Your task to perform on an android device: Go to Wikipedia Image 0: 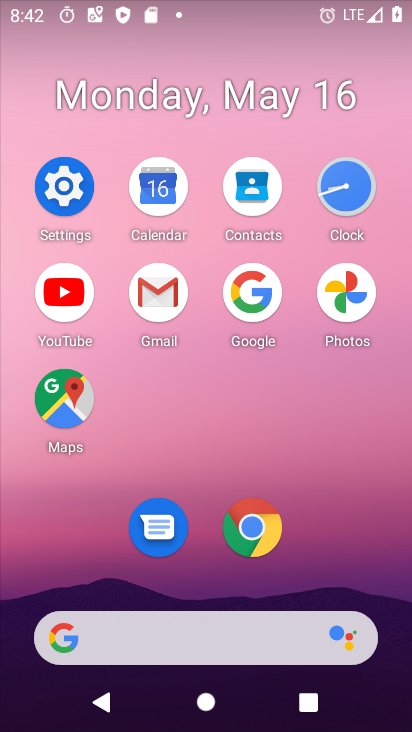
Step 0: click (249, 530)
Your task to perform on an android device: Go to Wikipedia Image 1: 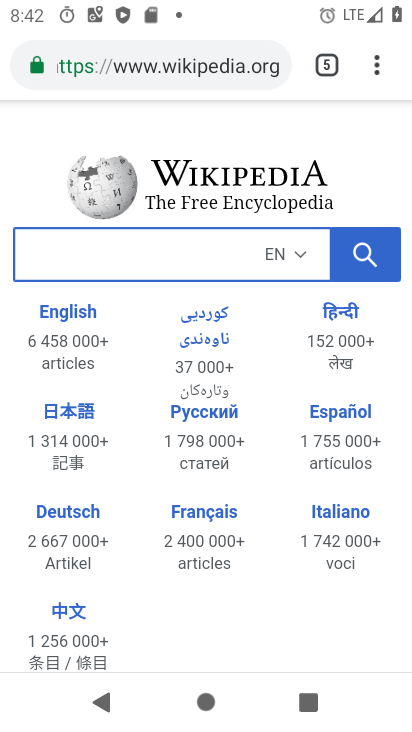
Step 1: click (320, 70)
Your task to perform on an android device: Go to Wikipedia Image 2: 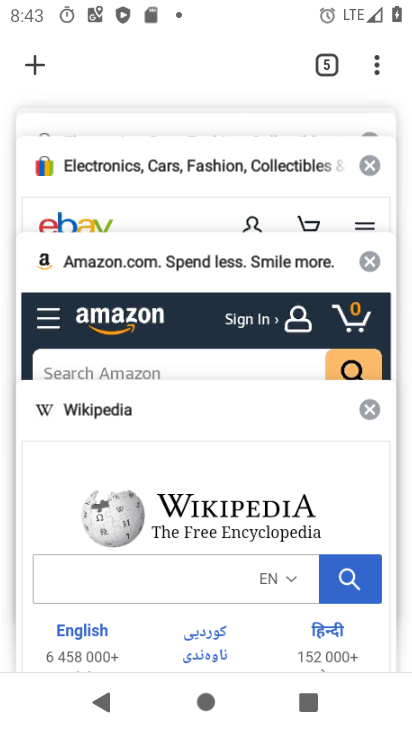
Step 2: click (35, 68)
Your task to perform on an android device: Go to Wikipedia Image 3: 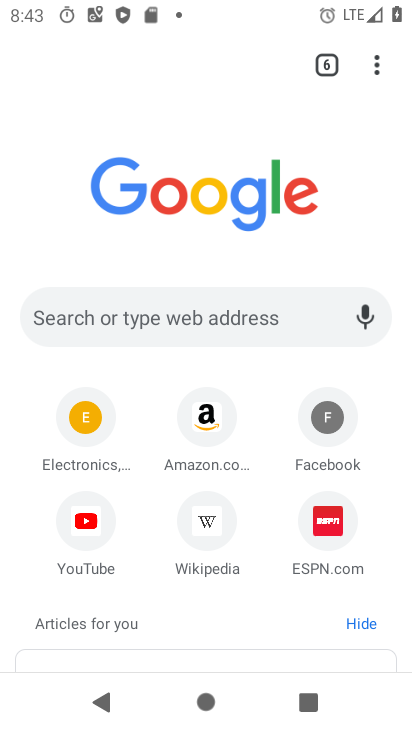
Step 3: click (216, 520)
Your task to perform on an android device: Go to Wikipedia Image 4: 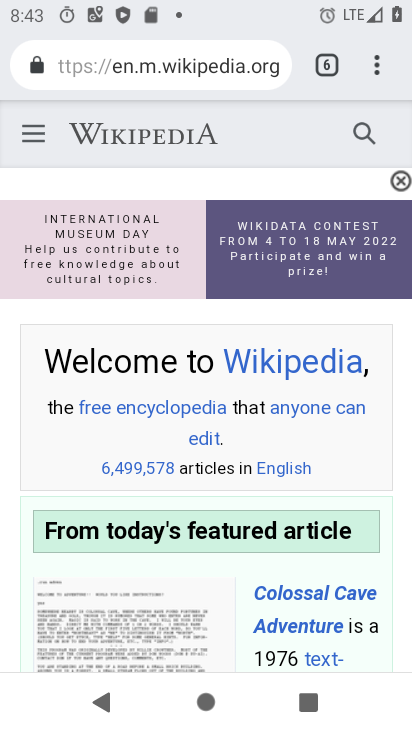
Step 4: task complete